Your task to perform on an android device: change the clock display to analog Image 0: 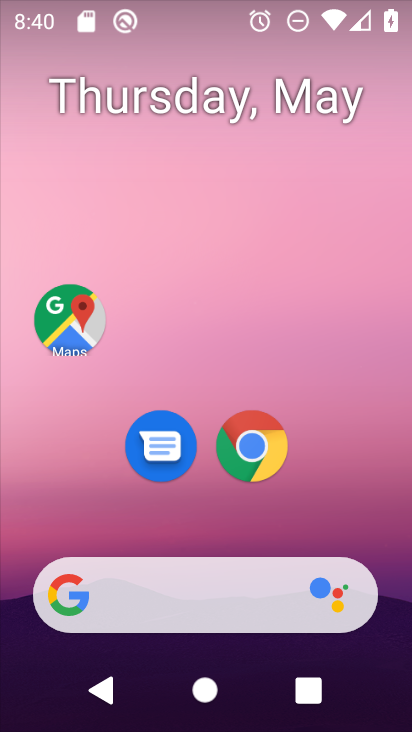
Step 0: drag from (367, 488) to (384, 80)
Your task to perform on an android device: change the clock display to analog Image 1: 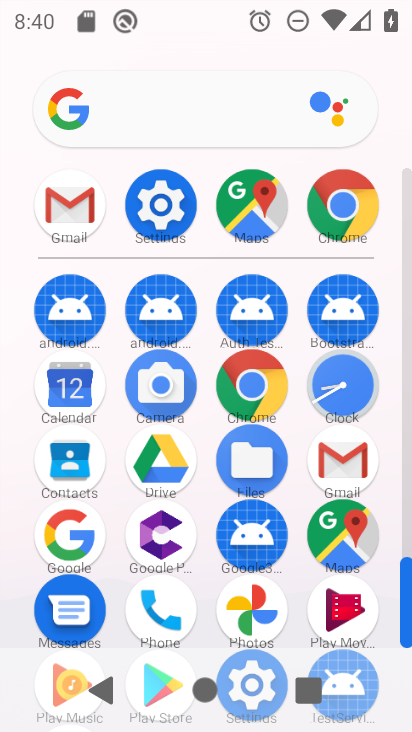
Step 1: drag from (205, 645) to (244, 379)
Your task to perform on an android device: change the clock display to analog Image 2: 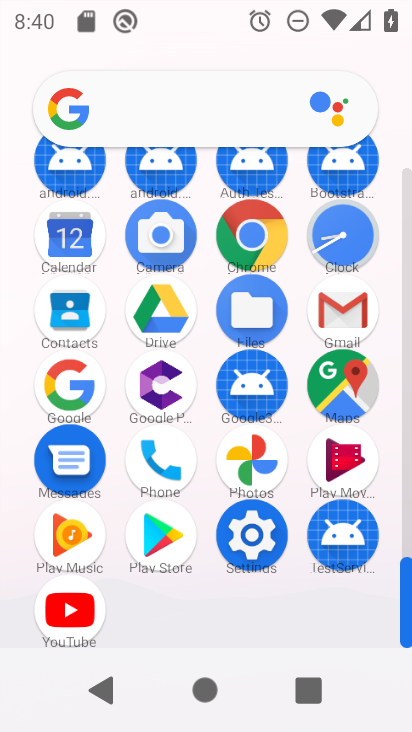
Step 2: click (344, 244)
Your task to perform on an android device: change the clock display to analog Image 3: 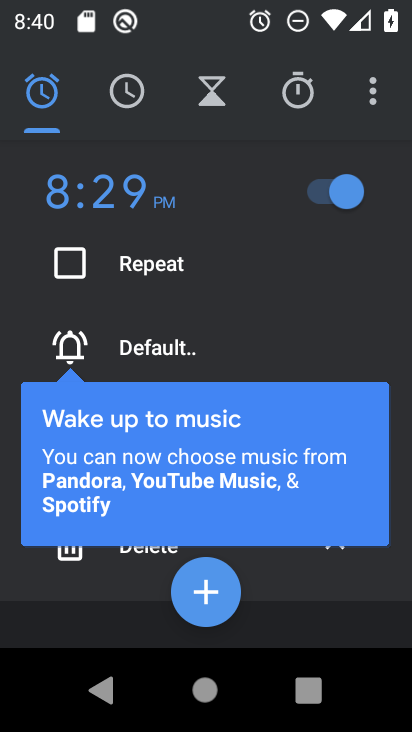
Step 3: click (373, 107)
Your task to perform on an android device: change the clock display to analog Image 4: 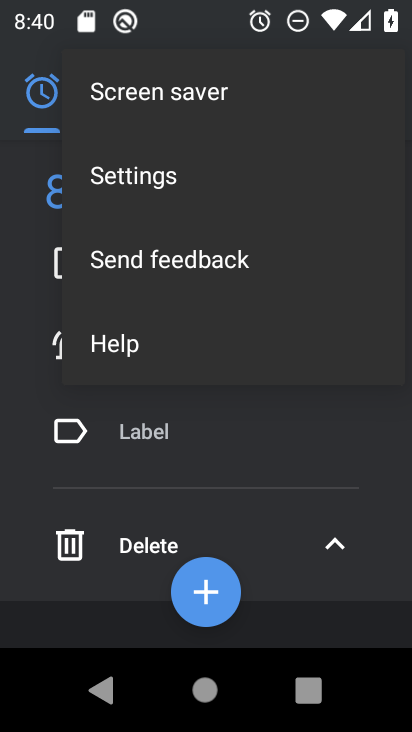
Step 4: click (207, 172)
Your task to perform on an android device: change the clock display to analog Image 5: 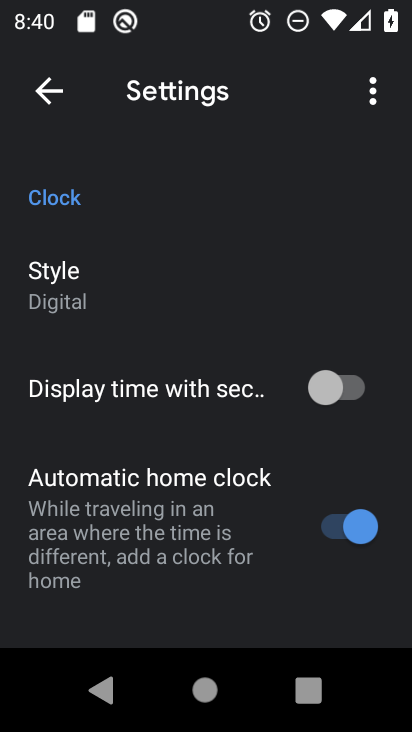
Step 5: click (110, 315)
Your task to perform on an android device: change the clock display to analog Image 6: 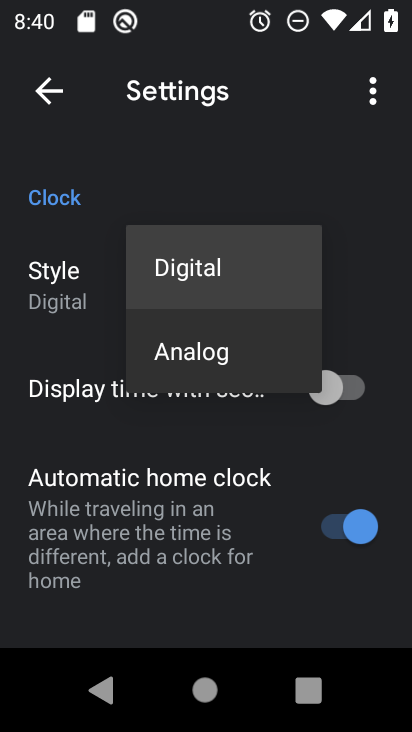
Step 6: click (197, 378)
Your task to perform on an android device: change the clock display to analog Image 7: 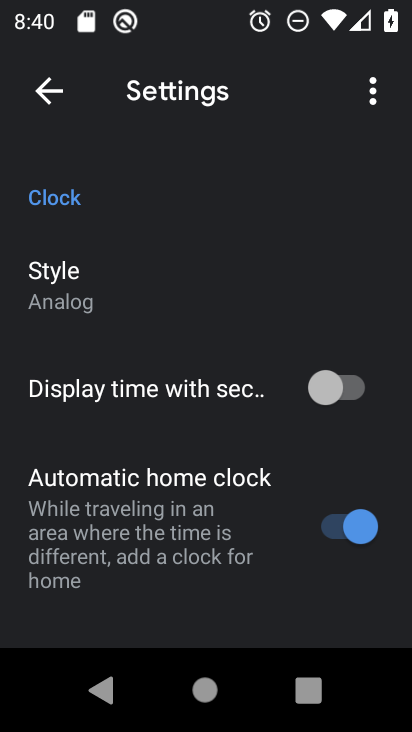
Step 7: task complete